Your task to perform on an android device: Open the phone app and click the voicemail tab. Image 0: 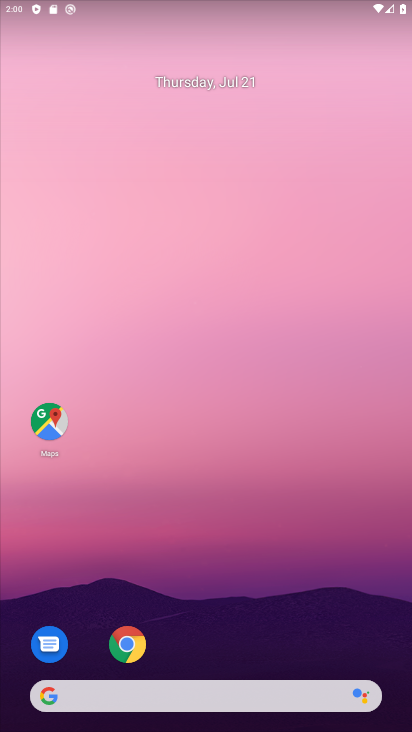
Step 0: drag from (250, 651) to (177, 142)
Your task to perform on an android device: Open the phone app and click the voicemail tab. Image 1: 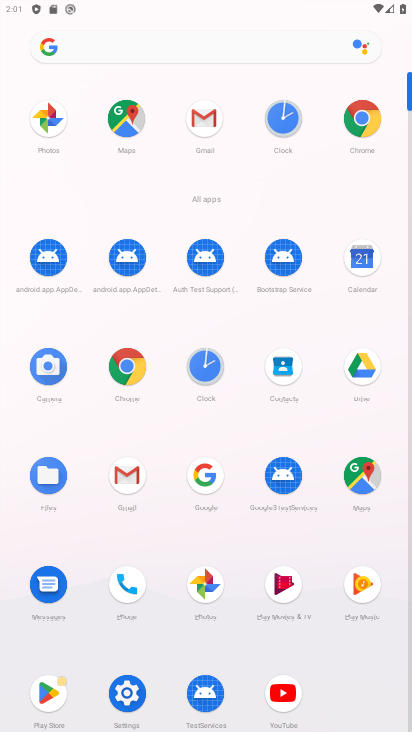
Step 1: click (121, 588)
Your task to perform on an android device: Open the phone app and click the voicemail tab. Image 2: 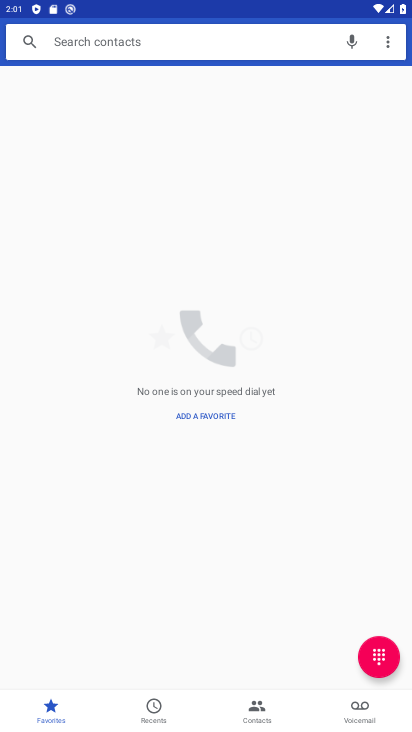
Step 2: click (366, 704)
Your task to perform on an android device: Open the phone app and click the voicemail tab. Image 3: 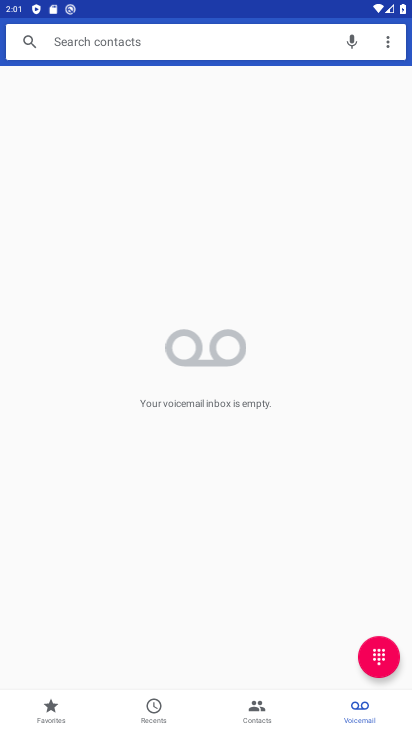
Step 3: task complete